Your task to perform on an android device: stop showing notifications on the lock screen Image 0: 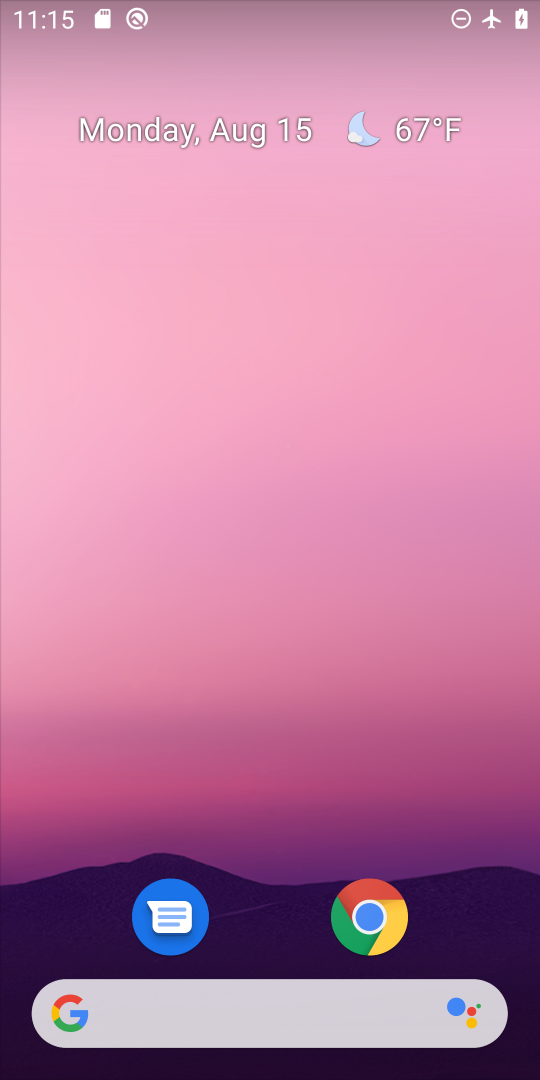
Step 0: drag from (309, 768) to (228, 0)
Your task to perform on an android device: stop showing notifications on the lock screen Image 1: 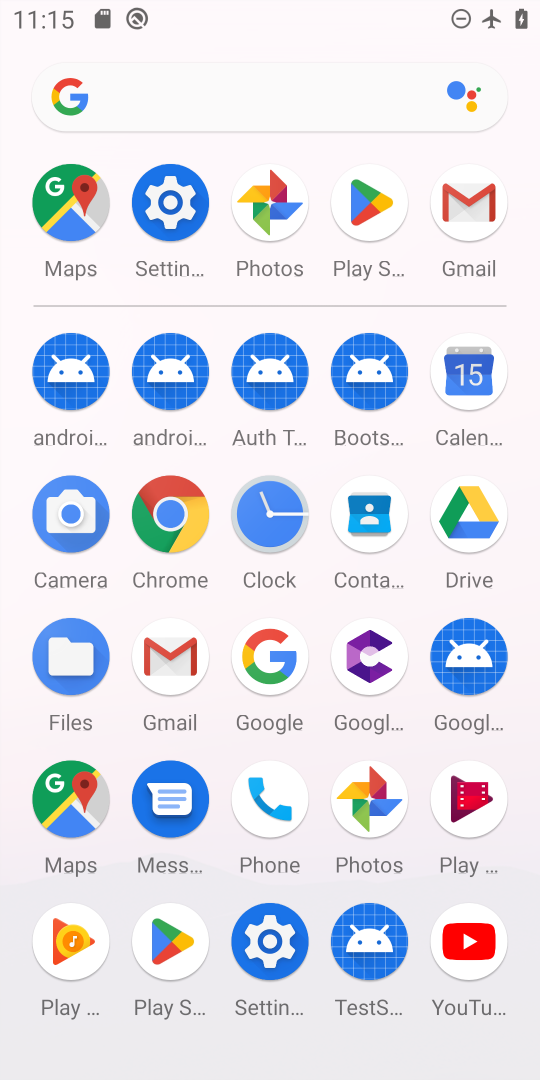
Step 1: click (172, 195)
Your task to perform on an android device: stop showing notifications on the lock screen Image 2: 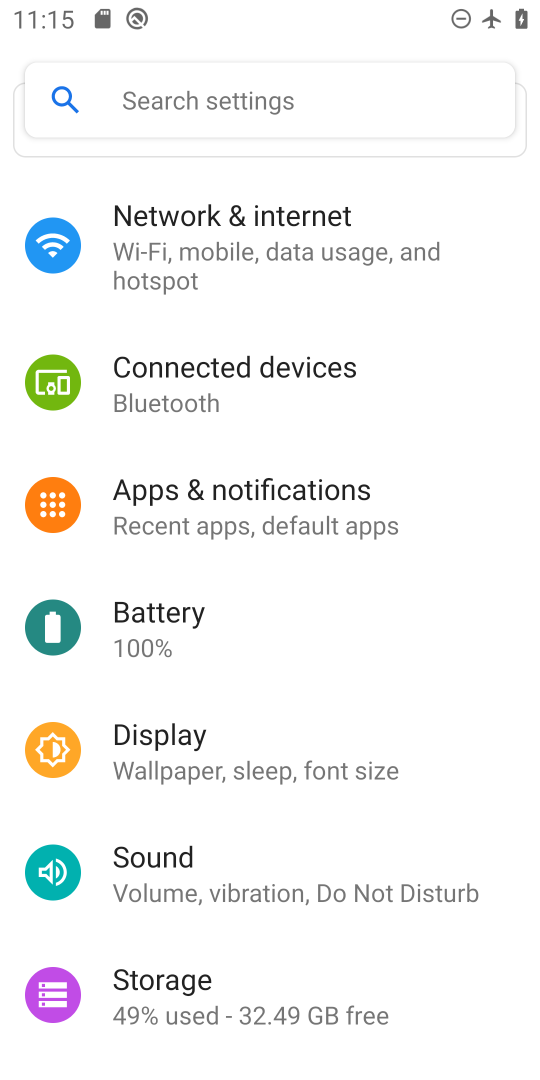
Step 2: click (272, 505)
Your task to perform on an android device: stop showing notifications on the lock screen Image 3: 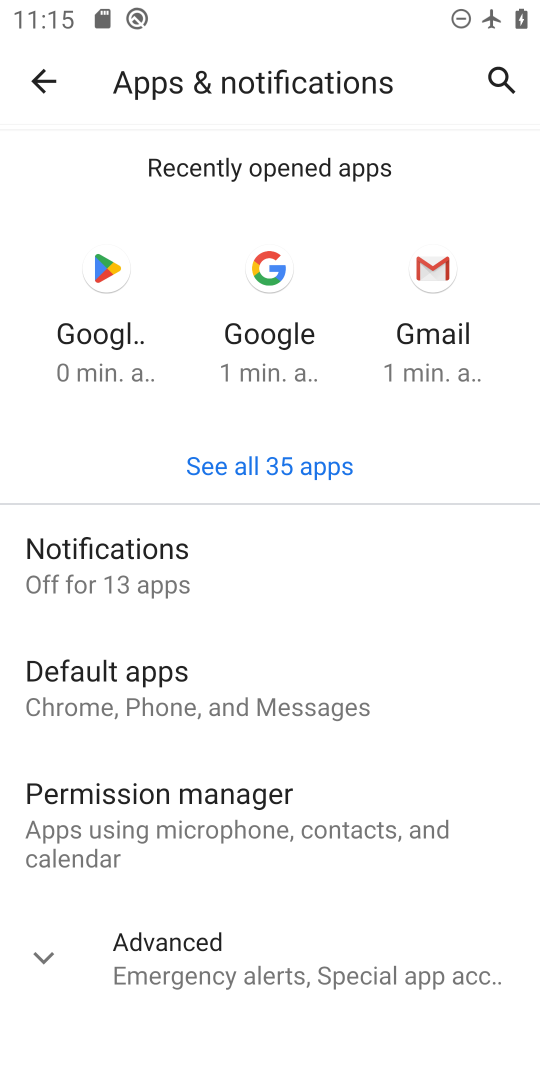
Step 3: click (175, 561)
Your task to perform on an android device: stop showing notifications on the lock screen Image 4: 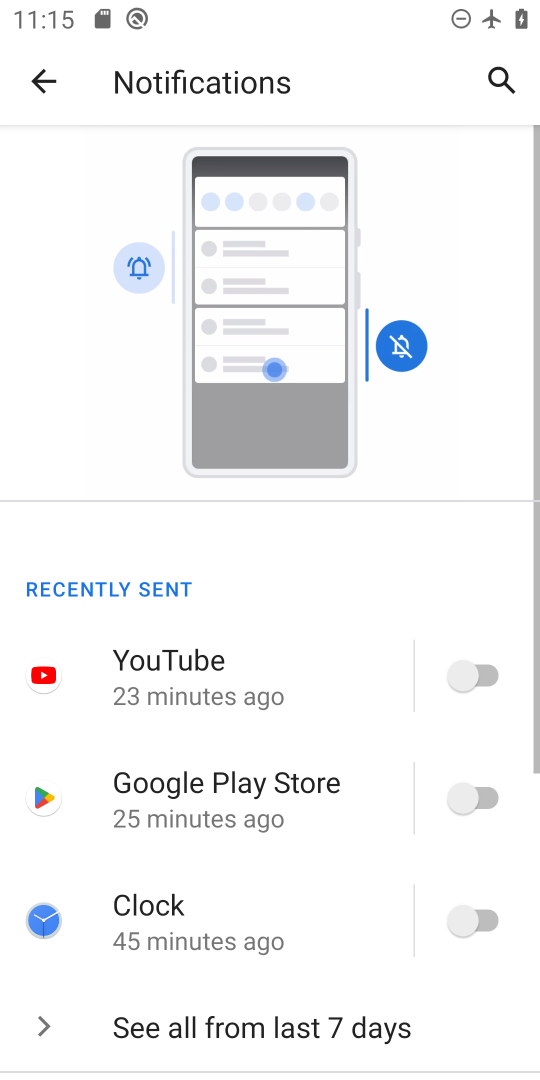
Step 4: drag from (333, 754) to (278, 15)
Your task to perform on an android device: stop showing notifications on the lock screen Image 5: 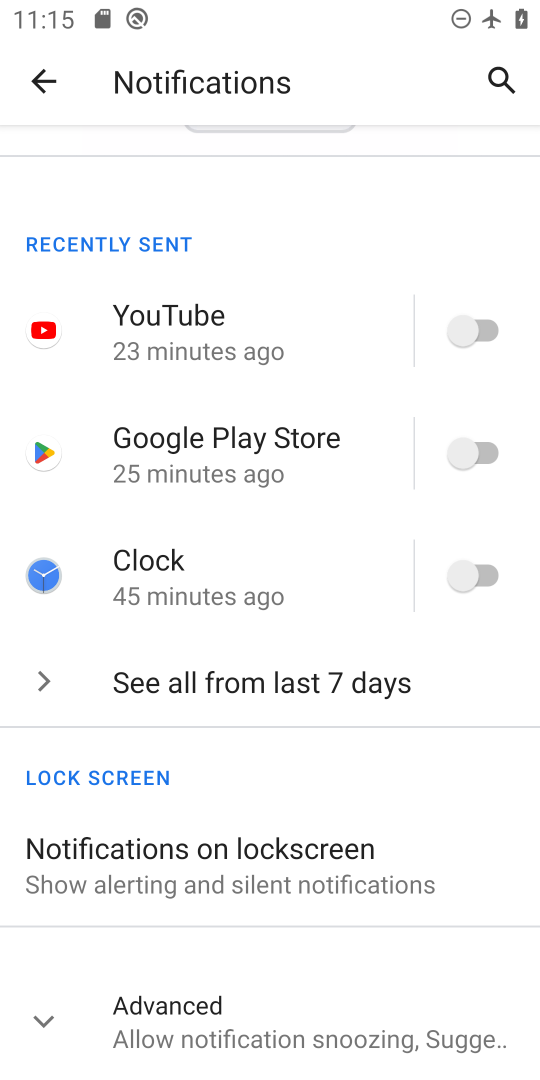
Step 5: click (300, 869)
Your task to perform on an android device: stop showing notifications on the lock screen Image 6: 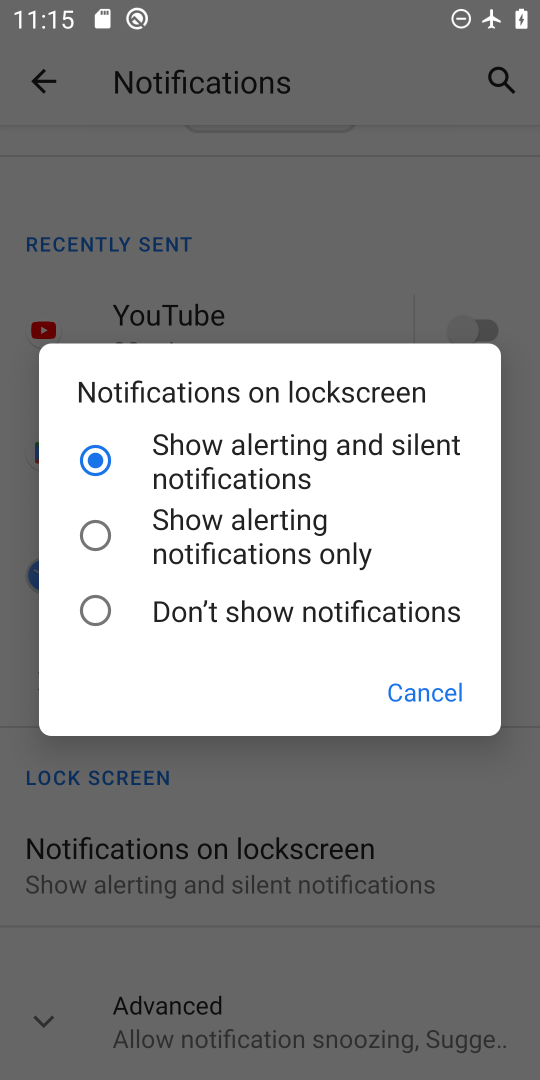
Step 6: click (113, 591)
Your task to perform on an android device: stop showing notifications on the lock screen Image 7: 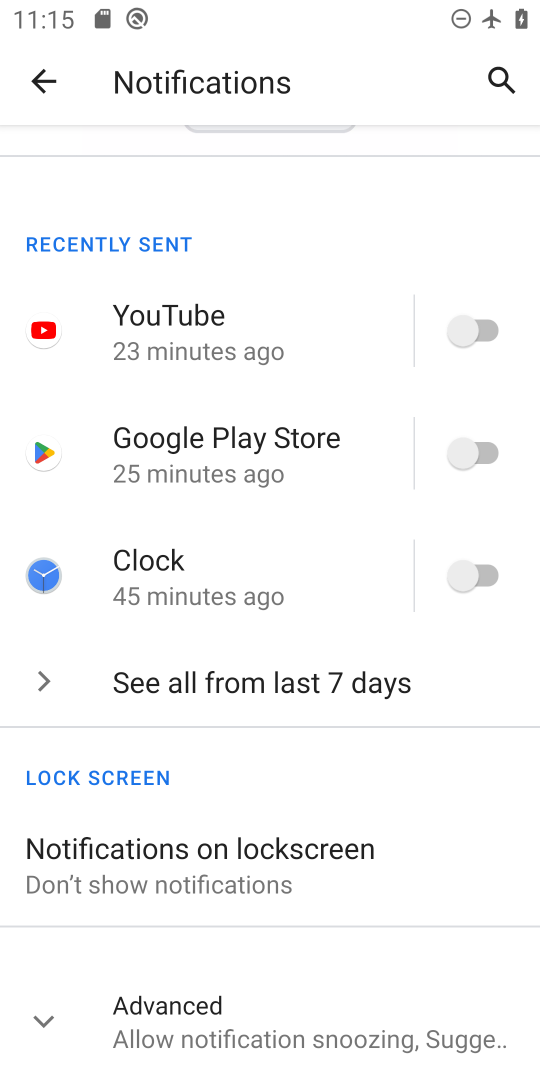
Step 7: task complete